Your task to perform on an android device: all mails in gmail Image 0: 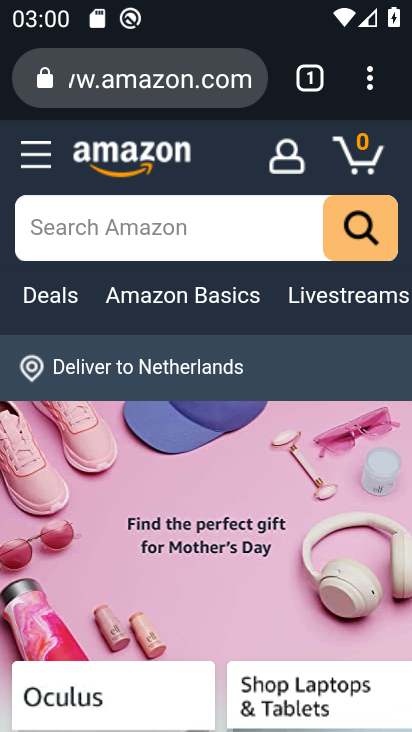
Step 0: press home button
Your task to perform on an android device: all mails in gmail Image 1: 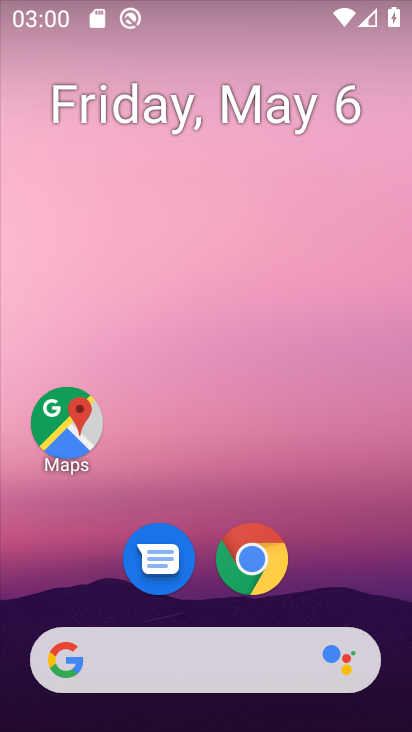
Step 1: drag from (272, 625) to (286, 14)
Your task to perform on an android device: all mails in gmail Image 2: 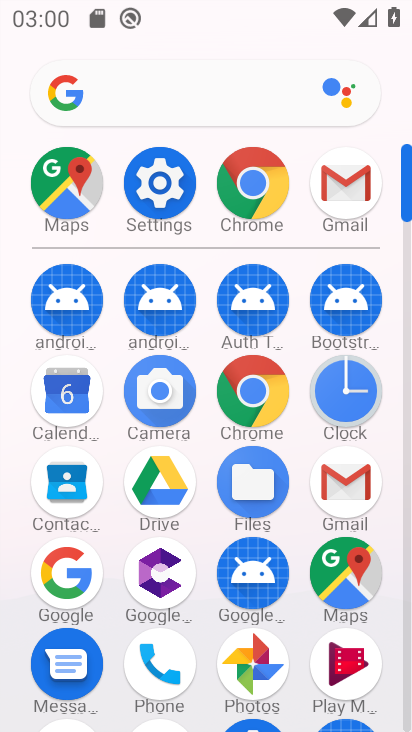
Step 2: click (359, 492)
Your task to perform on an android device: all mails in gmail Image 3: 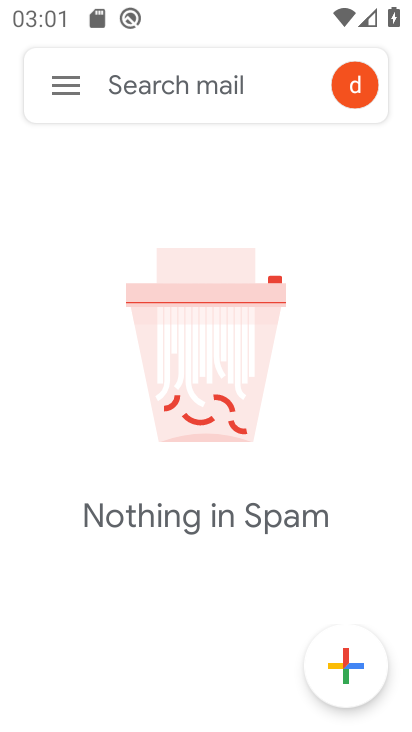
Step 3: click (56, 84)
Your task to perform on an android device: all mails in gmail Image 4: 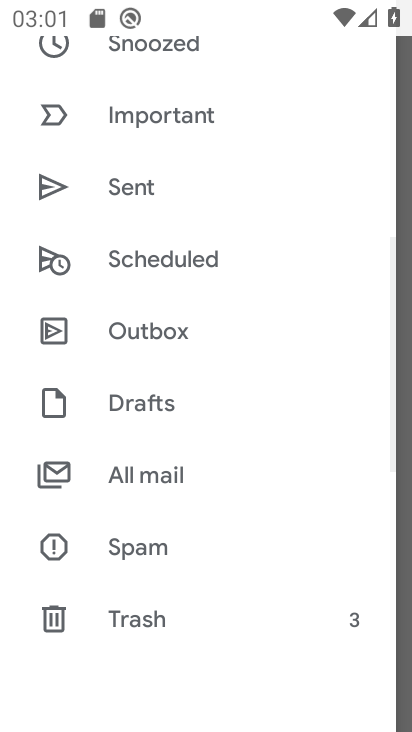
Step 4: click (211, 472)
Your task to perform on an android device: all mails in gmail Image 5: 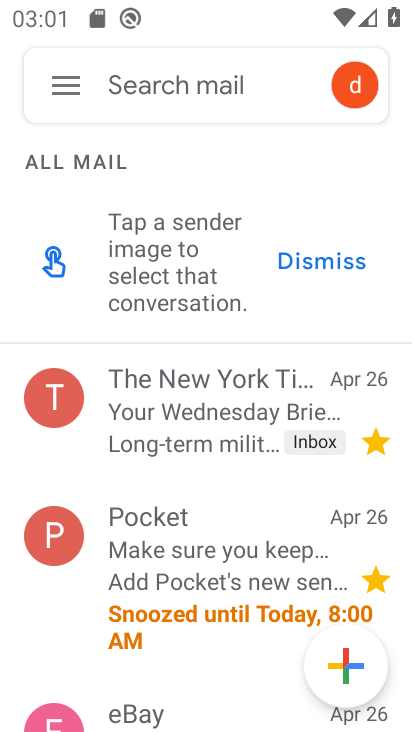
Step 5: task complete